Your task to perform on an android device: Show the shopping cart on bestbuy.com. Add "corsair k70" to the cart on bestbuy.com Image 0: 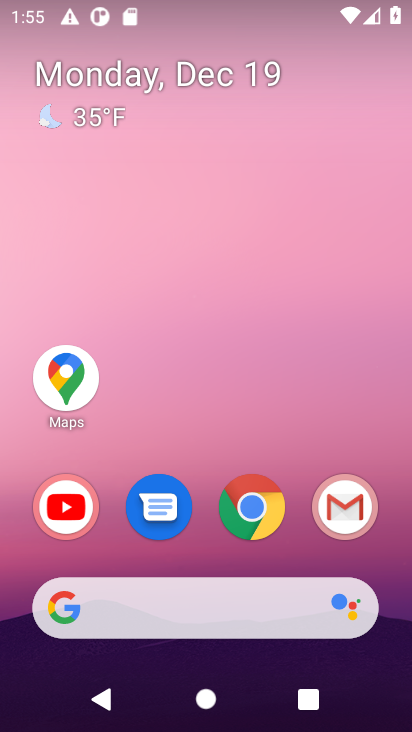
Step 0: click (248, 514)
Your task to perform on an android device: Show the shopping cart on bestbuy.com. Add "corsair k70" to the cart on bestbuy.com Image 1: 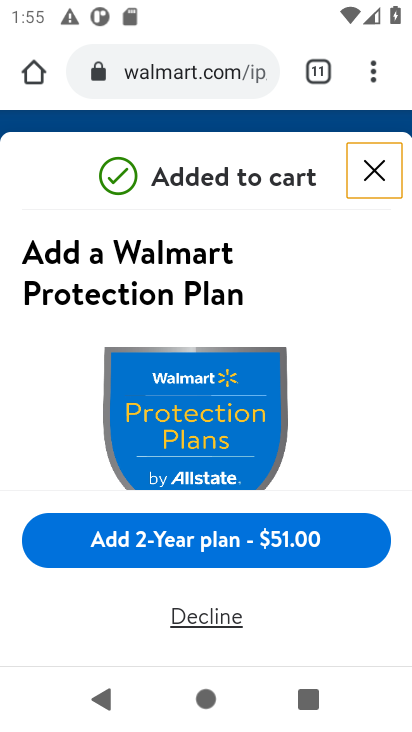
Step 1: click (176, 74)
Your task to perform on an android device: Show the shopping cart on bestbuy.com. Add "corsair k70" to the cart on bestbuy.com Image 2: 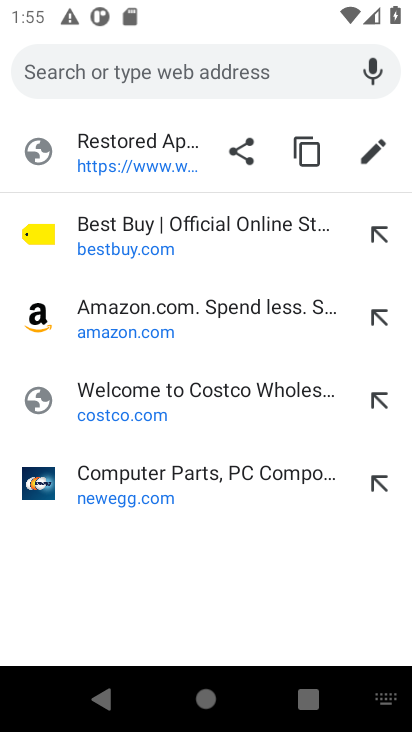
Step 2: click (106, 234)
Your task to perform on an android device: Show the shopping cart on bestbuy.com. Add "corsair k70" to the cart on bestbuy.com Image 3: 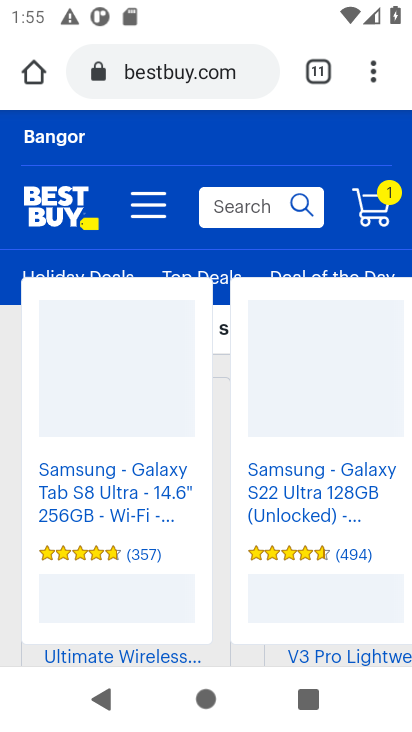
Step 3: click (374, 214)
Your task to perform on an android device: Show the shopping cart on bestbuy.com. Add "corsair k70" to the cart on bestbuy.com Image 4: 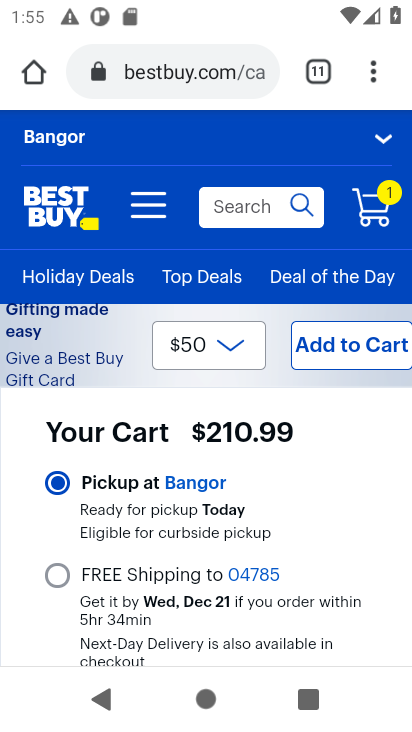
Step 4: drag from (209, 507) to (203, 293)
Your task to perform on an android device: Show the shopping cart on bestbuy.com. Add "corsair k70" to the cart on bestbuy.com Image 5: 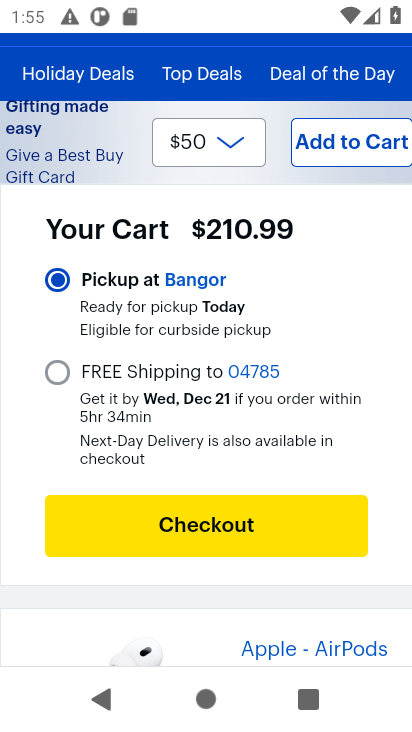
Step 5: drag from (288, 295) to (242, 601)
Your task to perform on an android device: Show the shopping cart on bestbuy.com. Add "corsair k70" to the cart on bestbuy.com Image 6: 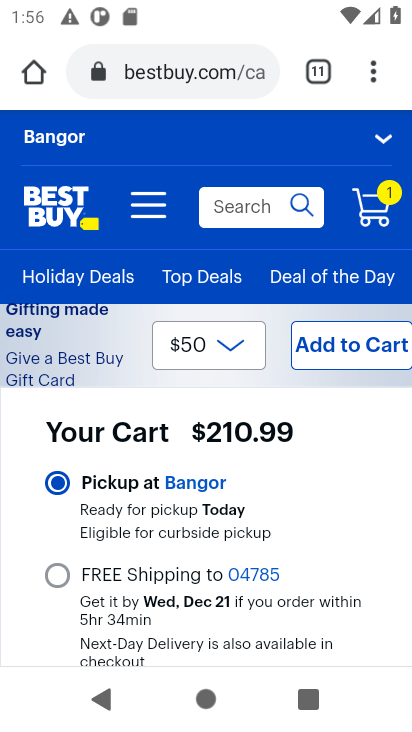
Step 6: click (226, 211)
Your task to perform on an android device: Show the shopping cart on bestbuy.com. Add "corsair k70" to the cart on bestbuy.com Image 7: 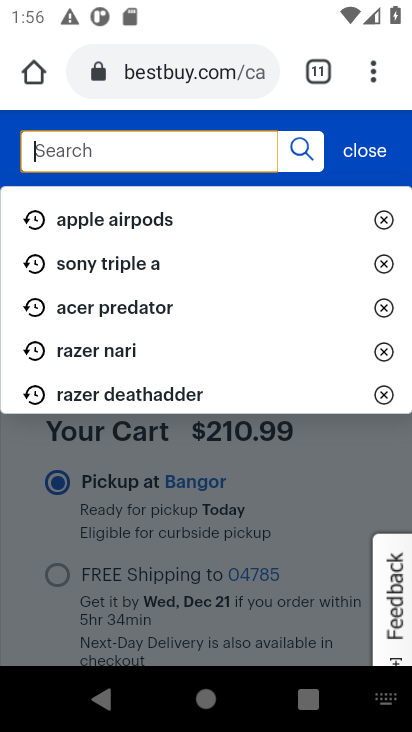
Step 7: type "corsair k70"
Your task to perform on an android device: Show the shopping cart on bestbuy.com. Add "corsair k70" to the cart on bestbuy.com Image 8: 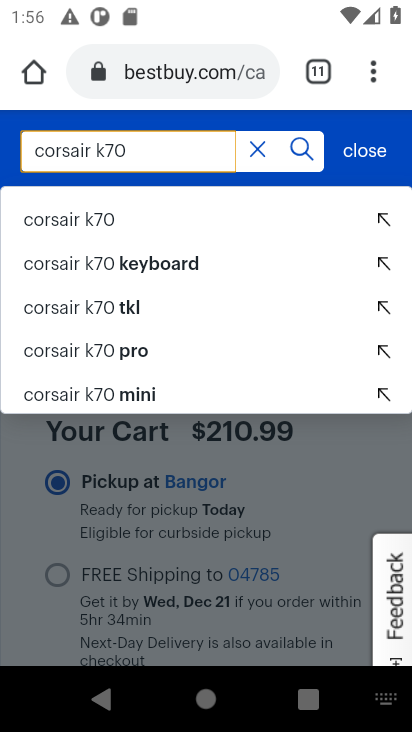
Step 8: click (83, 227)
Your task to perform on an android device: Show the shopping cart on bestbuy.com. Add "corsair k70" to the cart on bestbuy.com Image 9: 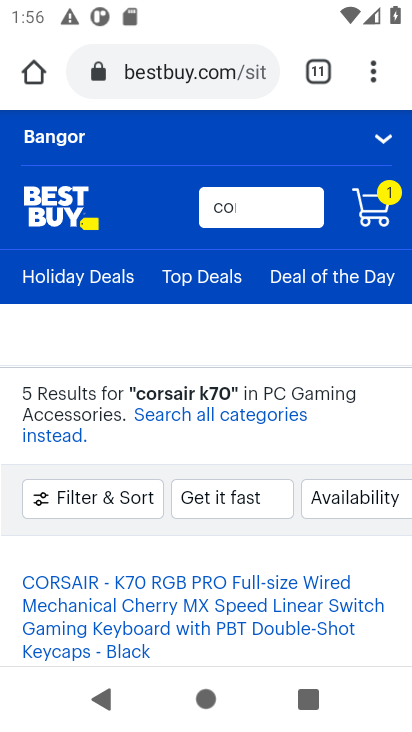
Step 9: drag from (122, 439) to (118, 211)
Your task to perform on an android device: Show the shopping cart on bestbuy.com. Add "corsair k70" to the cart on bestbuy.com Image 10: 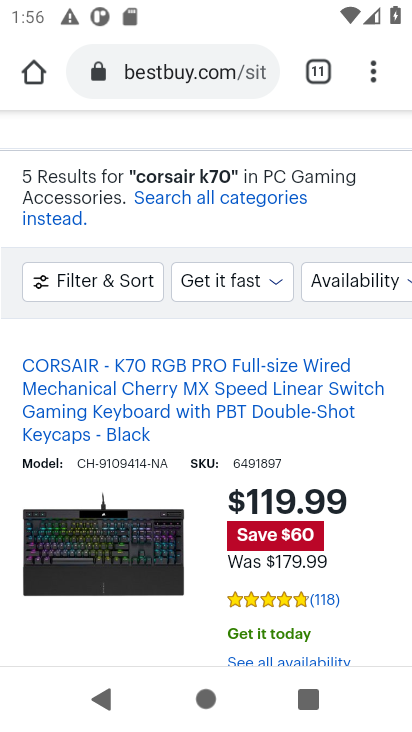
Step 10: drag from (107, 424) to (120, 232)
Your task to perform on an android device: Show the shopping cart on bestbuy.com. Add "corsair k70" to the cart on bestbuy.com Image 11: 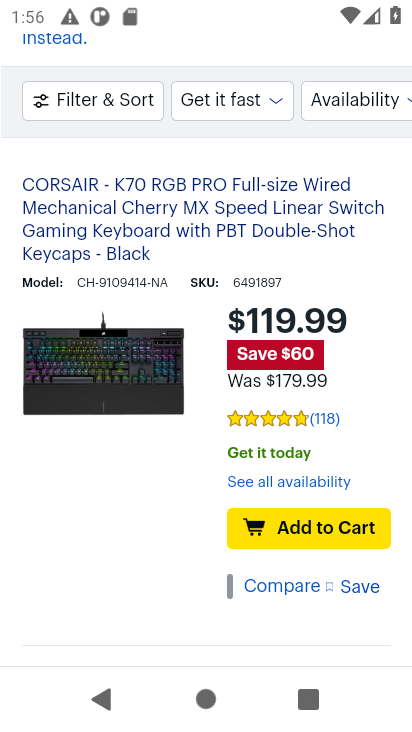
Step 11: click (301, 535)
Your task to perform on an android device: Show the shopping cart on bestbuy.com. Add "corsair k70" to the cart on bestbuy.com Image 12: 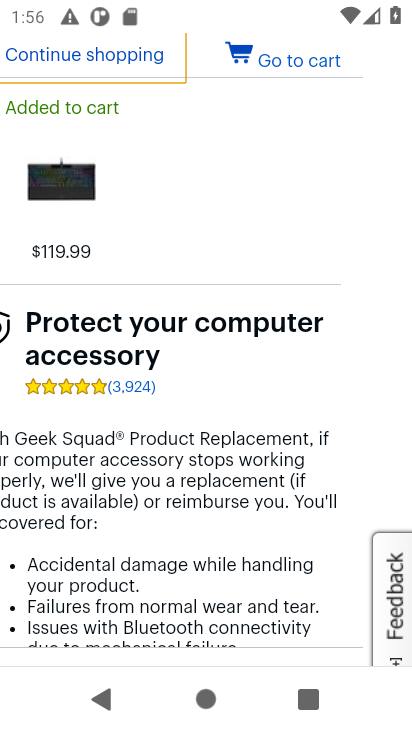
Step 12: task complete